Your task to perform on an android device: Open Wikipedia Image 0: 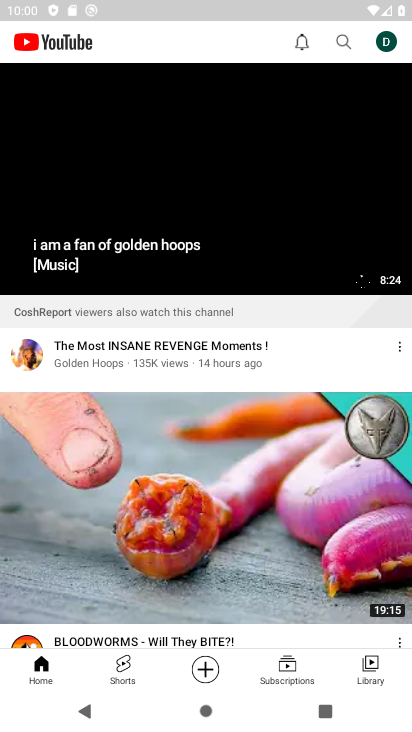
Step 0: press back button
Your task to perform on an android device: Open Wikipedia Image 1: 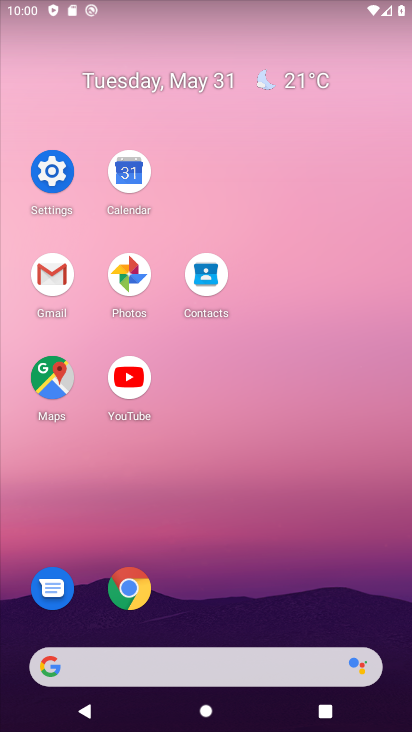
Step 1: click (176, 594)
Your task to perform on an android device: Open Wikipedia Image 2: 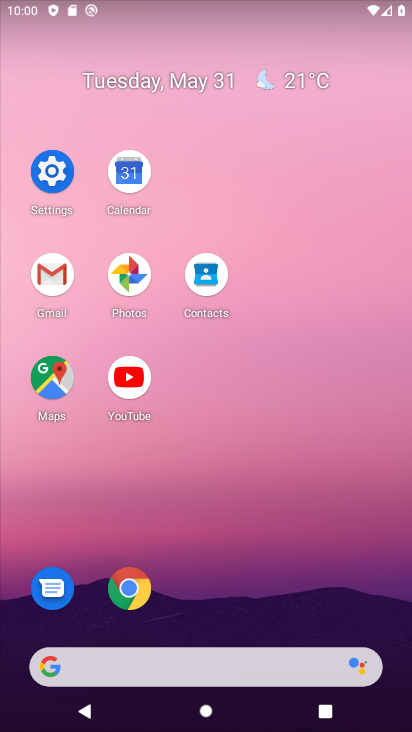
Step 2: click (144, 584)
Your task to perform on an android device: Open Wikipedia Image 3: 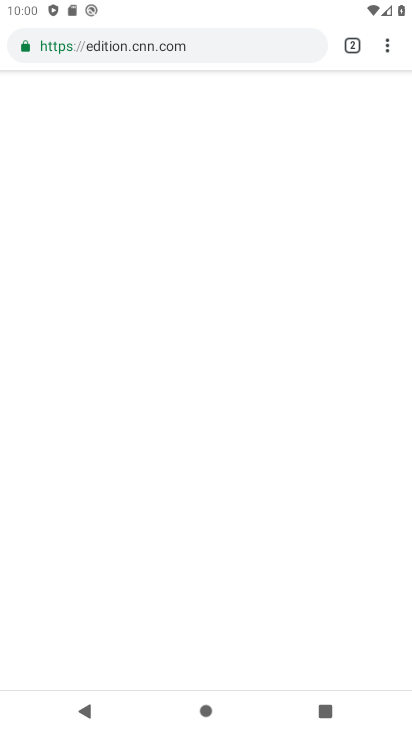
Step 3: click (352, 52)
Your task to perform on an android device: Open Wikipedia Image 4: 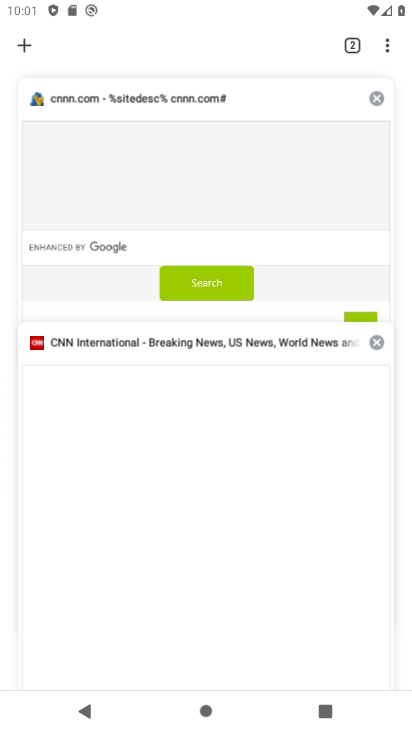
Step 4: click (29, 40)
Your task to perform on an android device: Open Wikipedia Image 5: 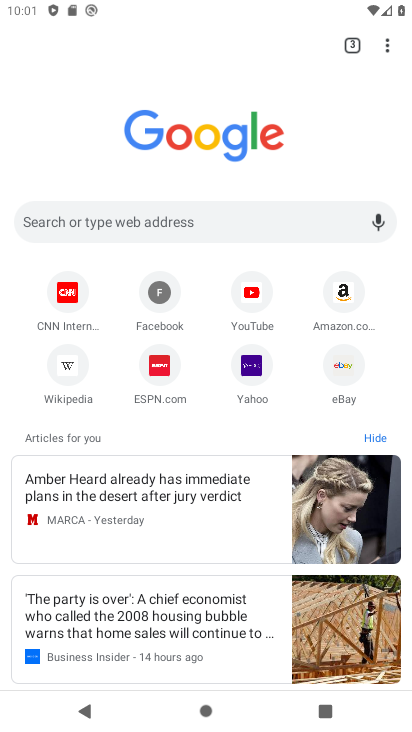
Step 5: click (63, 366)
Your task to perform on an android device: Open Wikipedia Image 6: 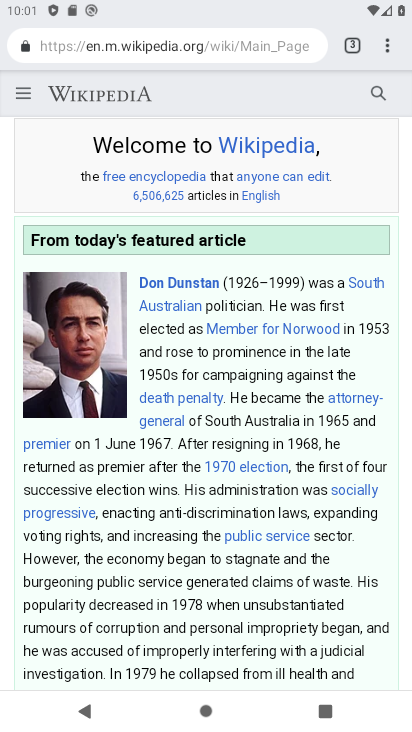
Step 6: task complete